Your task to perform on an android device: delete the emails in spam in the gmail app Image 0: 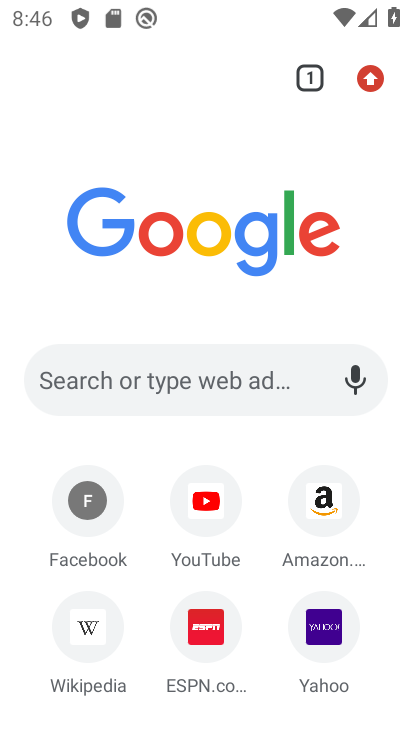
Step 0: press home button
Your task to perform on an android device: delete the emails in spam in the gmail app Image 1: 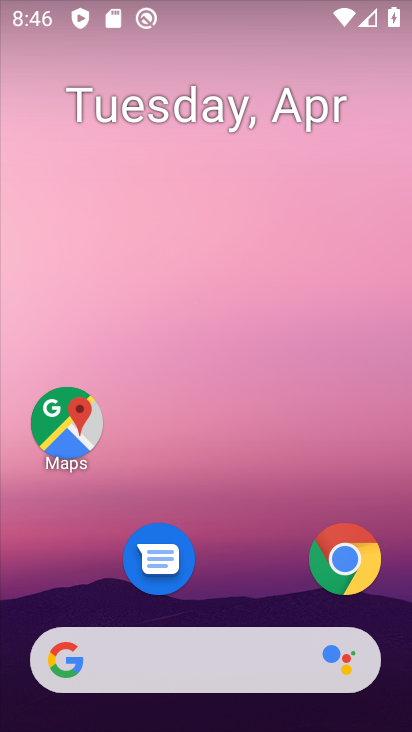
Step 1: drag from (274, 698) to (227, 144)
Your task to perform on an android device: delete the emails in spam in the gmail app Image 2: 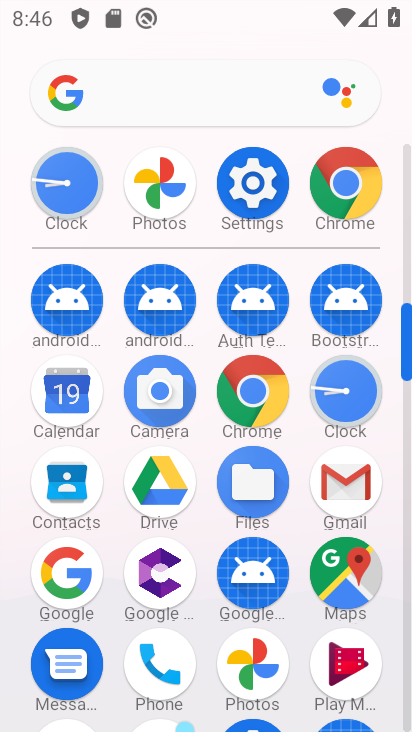
Step 2: click (330, 471)
Your task to perform on an android device: delete the emails in spam in the gmail app Image 3: 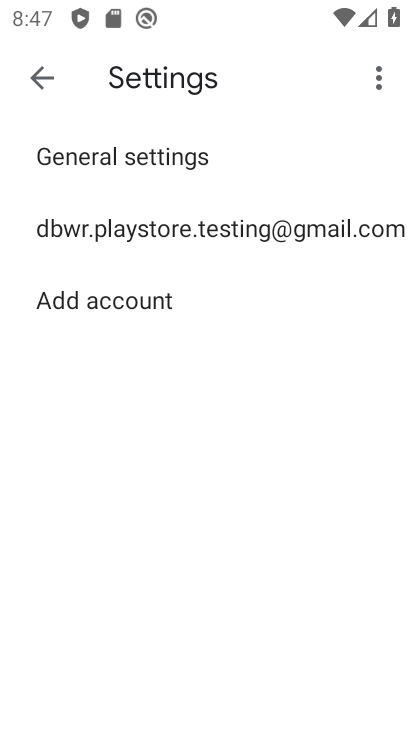
Step 3: click (183, 230)
Your task to perform on an android device: delete the emails in spam in the gmail app Image 4: 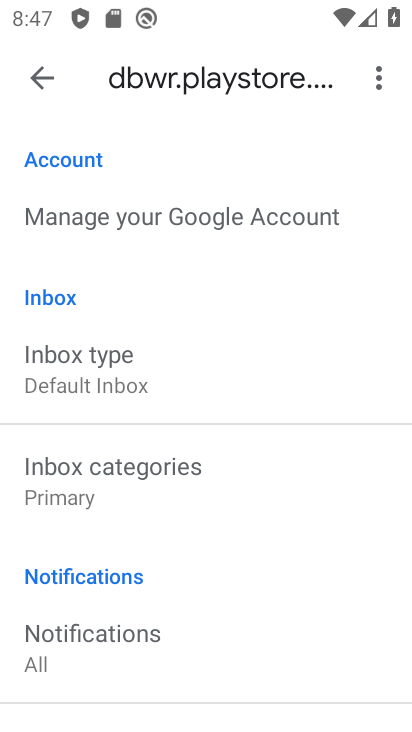
Step 4: click (53, 88)
Your task to perform on an android device: delete the emails in spam in the gmail app Image 5: 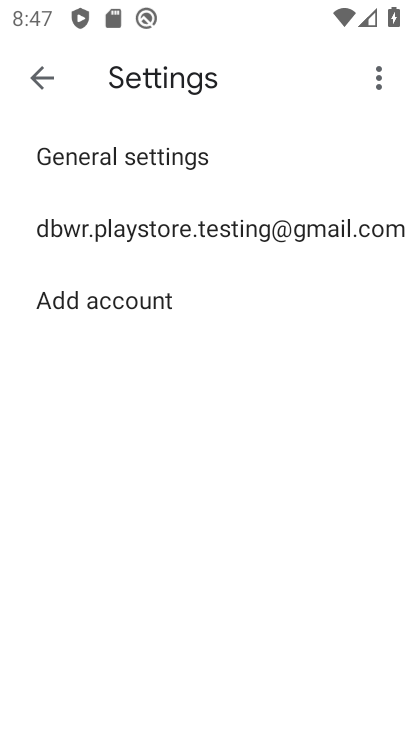
Step 5: click (53, 88)
Your task to perform on an android device: delete the emails in spam in the gmail app Image 6: 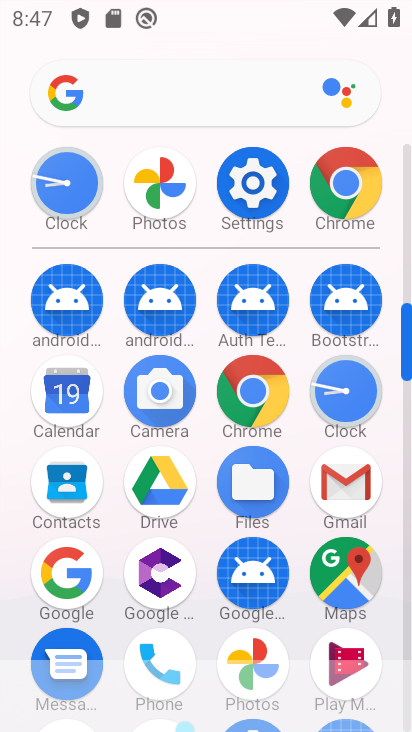
Step 6: click (339, 503)
Your task to perform on an android device: delete the emails in spam in the gmail app Image 7: 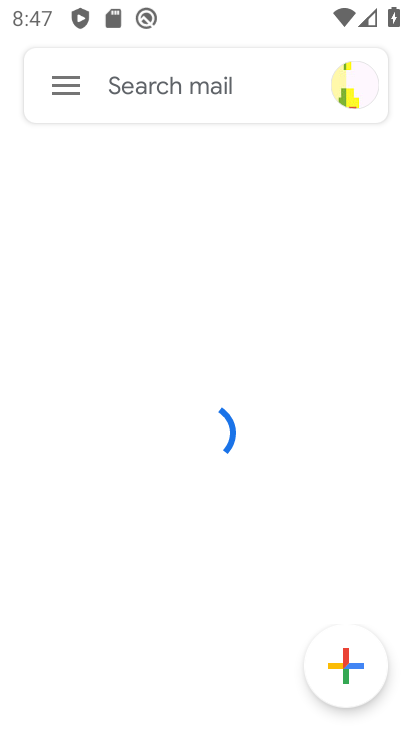
Step 7: click (61, 91)
Your task to perform on an android device: delete the emails in spam in the gmail app Image 8: 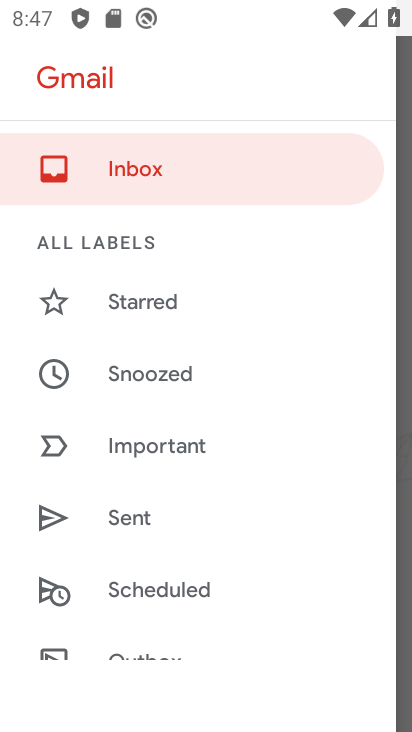
Step 8: drag from (137, 617) to (203, 143)
Your task to perform on an android device: delete the emails in spam in the gmail app Image 9: 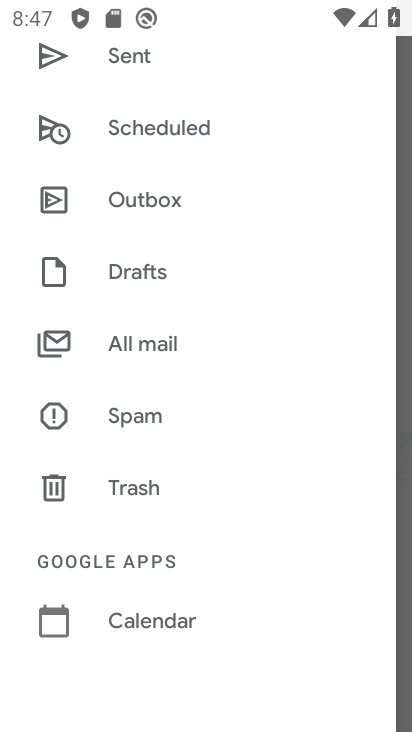
Step 9: click (146, 433)
Your task to perform on an android device: delete the emails in spam in the gmail app Image 10: 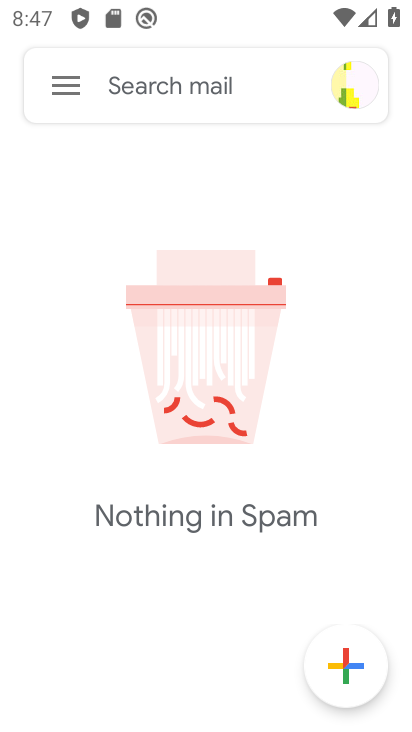
Step 10: task complete